Your task to perform on an android device: toggle airplane mode Image 0: 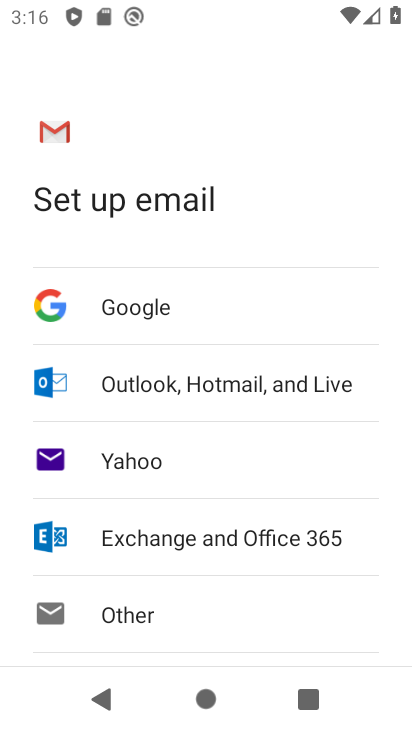
Step 0: drag from (266, 4) to (244, 462)
Your task to perform on an android device: toggle airplane mode Image 1: 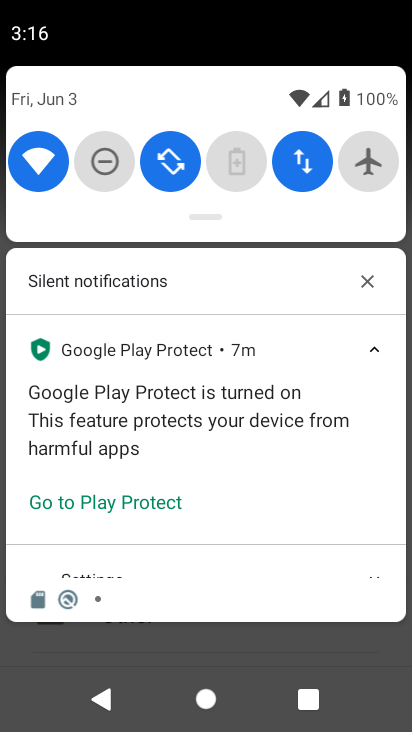
Step 1: click (364, 165)
Your task to perform on an android device: toggle airplane mode Image 2: 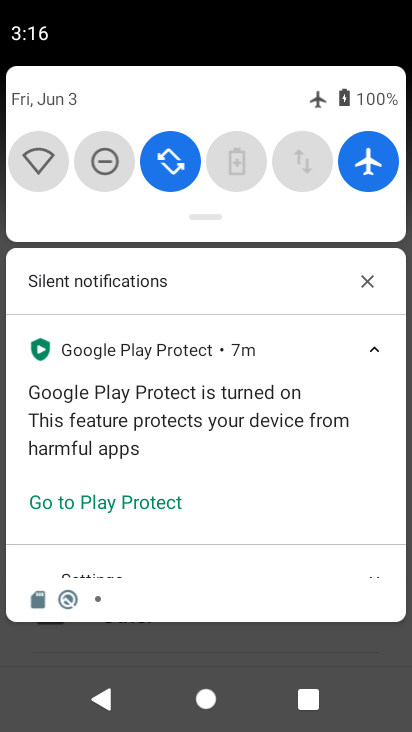
Step 2: task complete